Your task to perform on an android device: Open Youtube and go to "Your channel" Image 0: 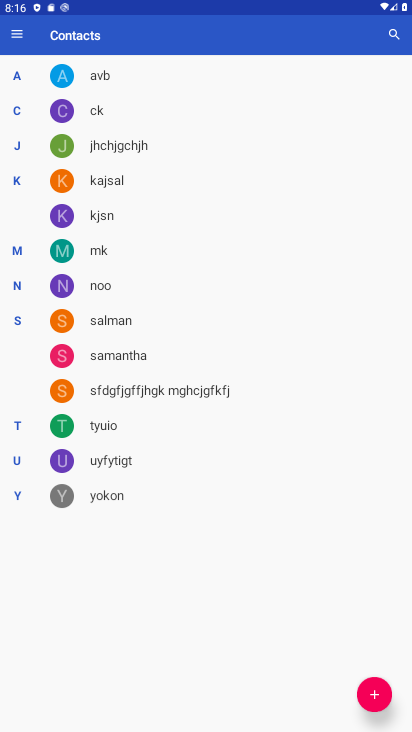
Step 0: click (233, 668)
Your task to perform on an android device: Open Youtube and go to "Your channel" Image 1: 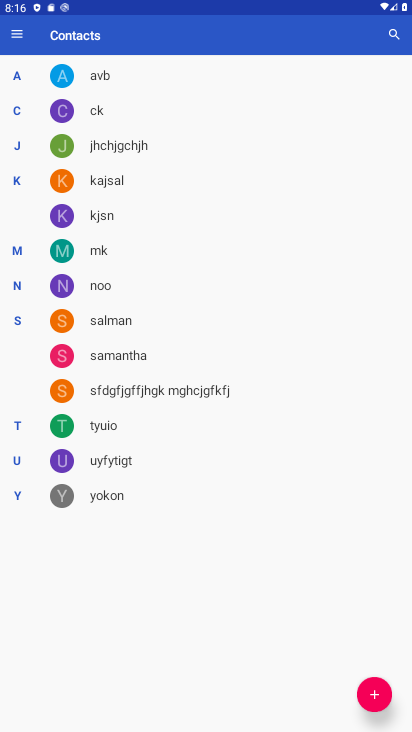
Step 1: press home button
Your task to perform on an android device: Open Youtube and go to "Your channel" Image 2: 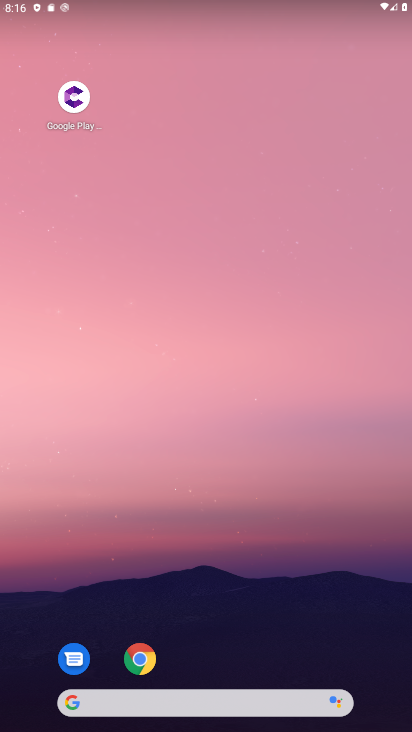
Step 2: drag from (188, 678) to (154, 153)
Your task to perform on an android device: Open Youtube and go to "Your channel" Image 3: 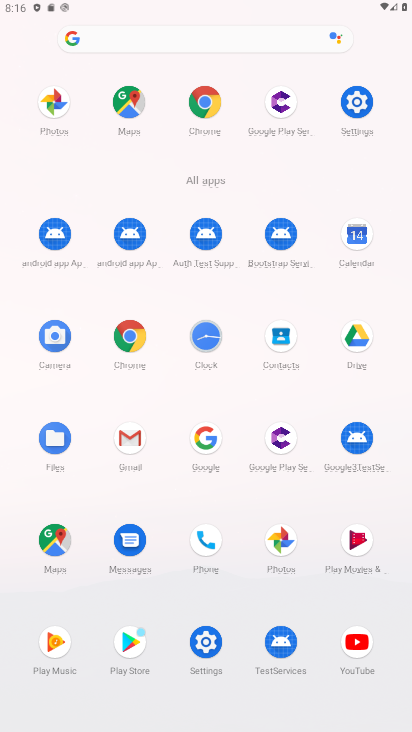
Step 3: click (347, 637)
Your task to perform on an android device: Open Youtube and go to "Your channel" Image 4: 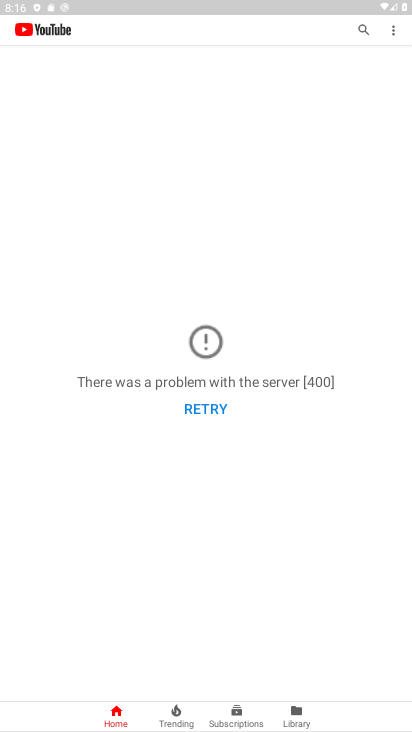
Step 4: click (389, 33)
Your task to perform on an android device: Open Youtube and go to "Your channel" Image 5: 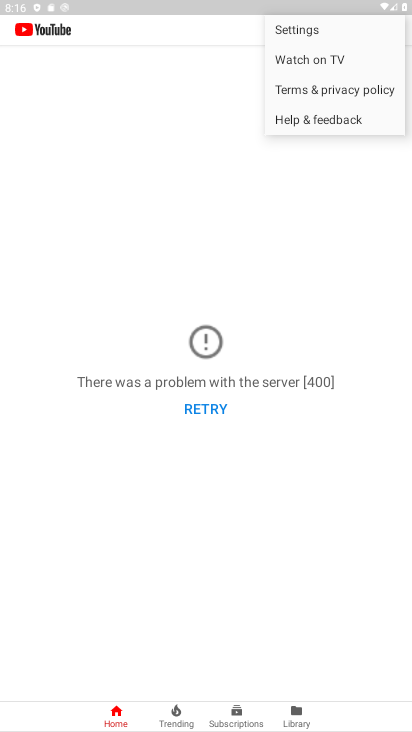
Step 5: click (318, 29)
Your task to perform on an android device: Open Youtube and go to "Your channel" Image 6: 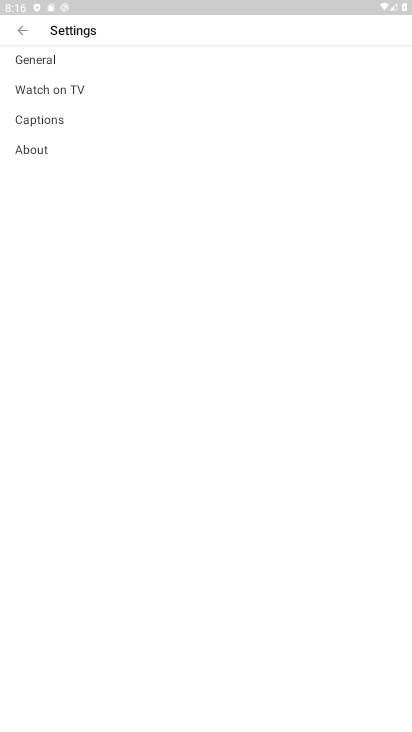
Step 6: click (10, 37)
Your task to perform on an android device: Open Youtube and go to "Your channel" Image 7: 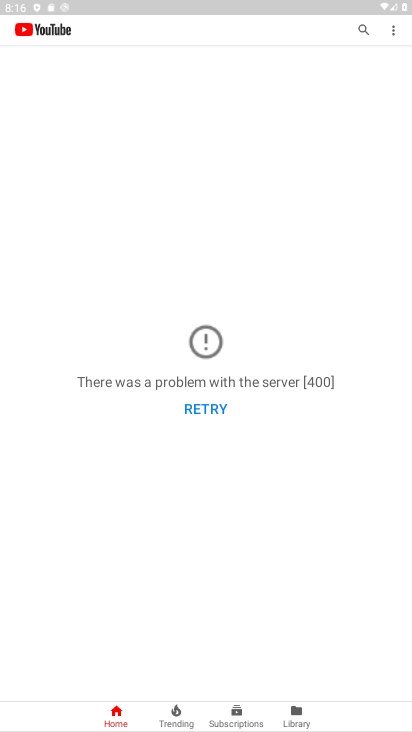
Step 7: task complete